Your task to perform on an android device: Add "logitech g pro" to the cart on newegg.com Image 0: 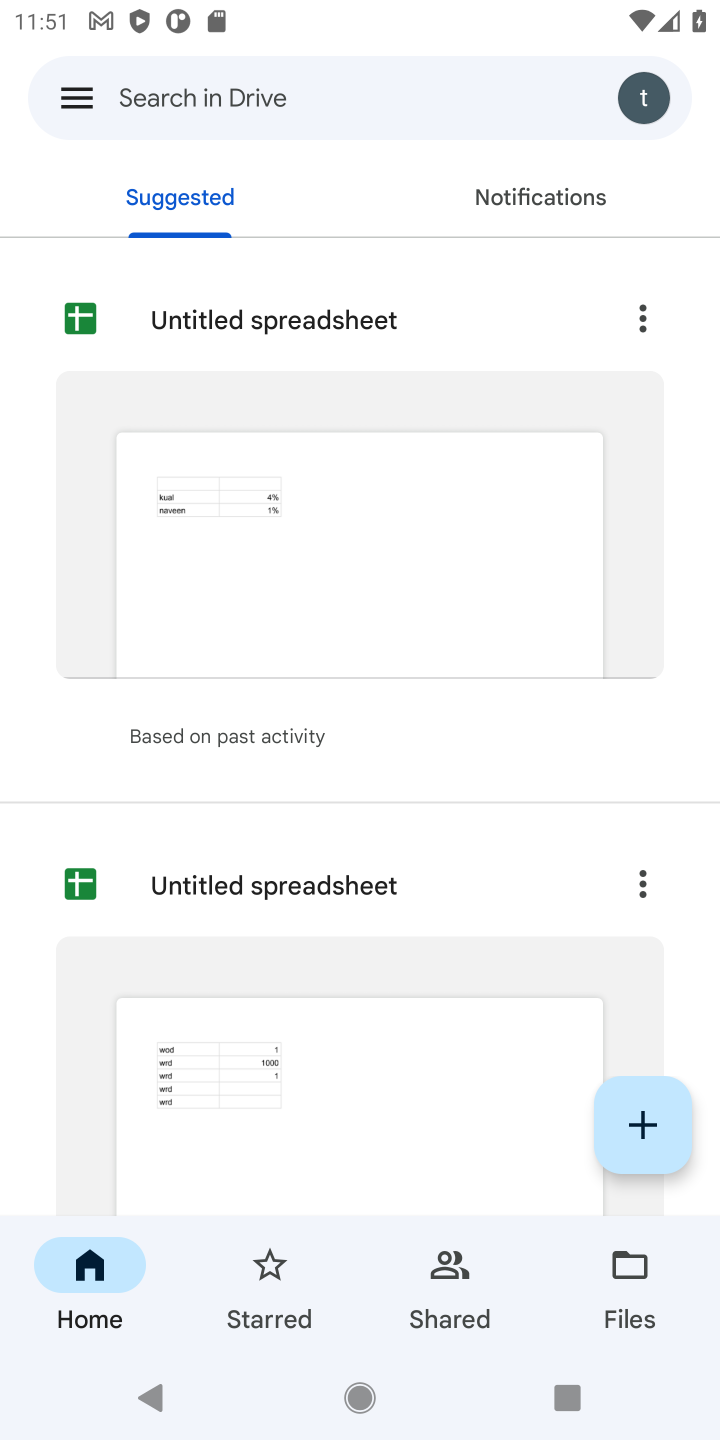
Step 0: press home button
Your task to perform on an android device: Add "logitech g pro" to the cart on newegg.com Image 1: 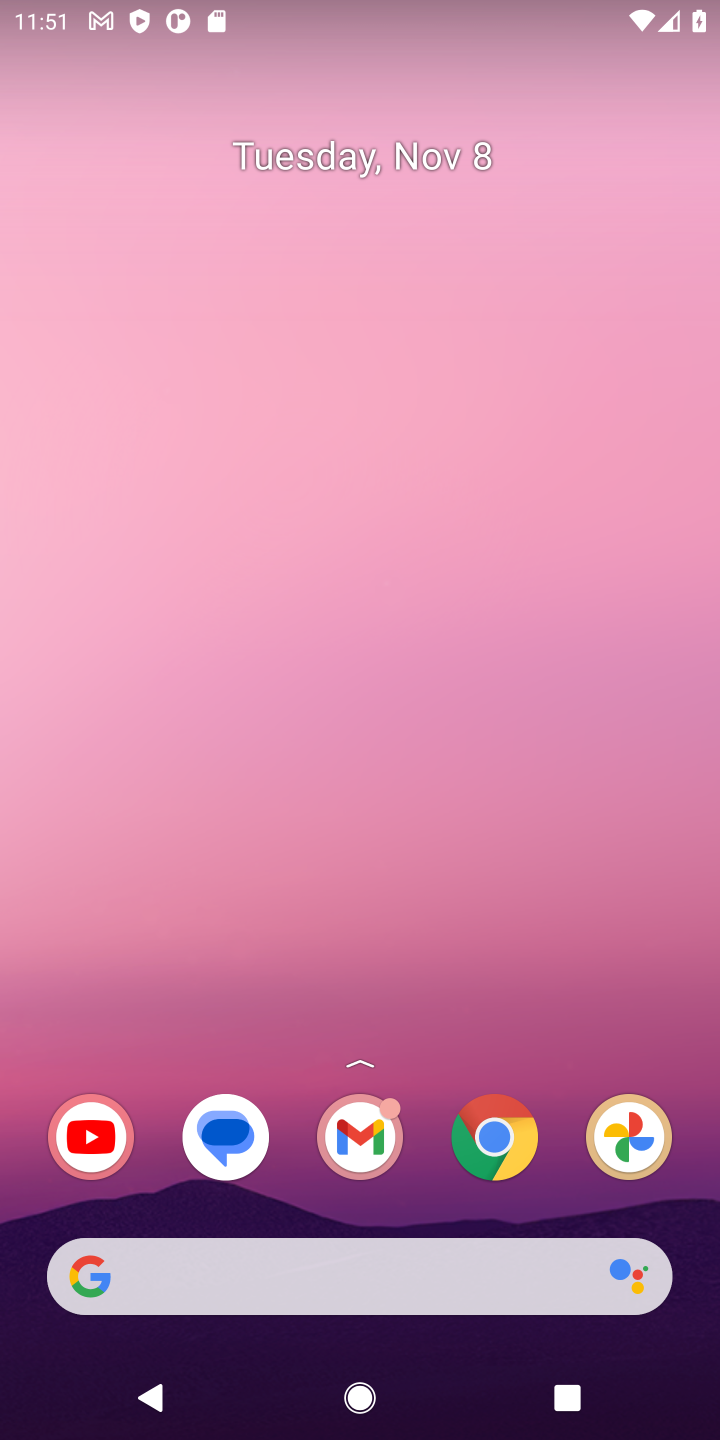
Step 1: click (494, 1141)
Your task to perform on an android device: Add "logitech g pro" to the cart on newegg.com Image 2: 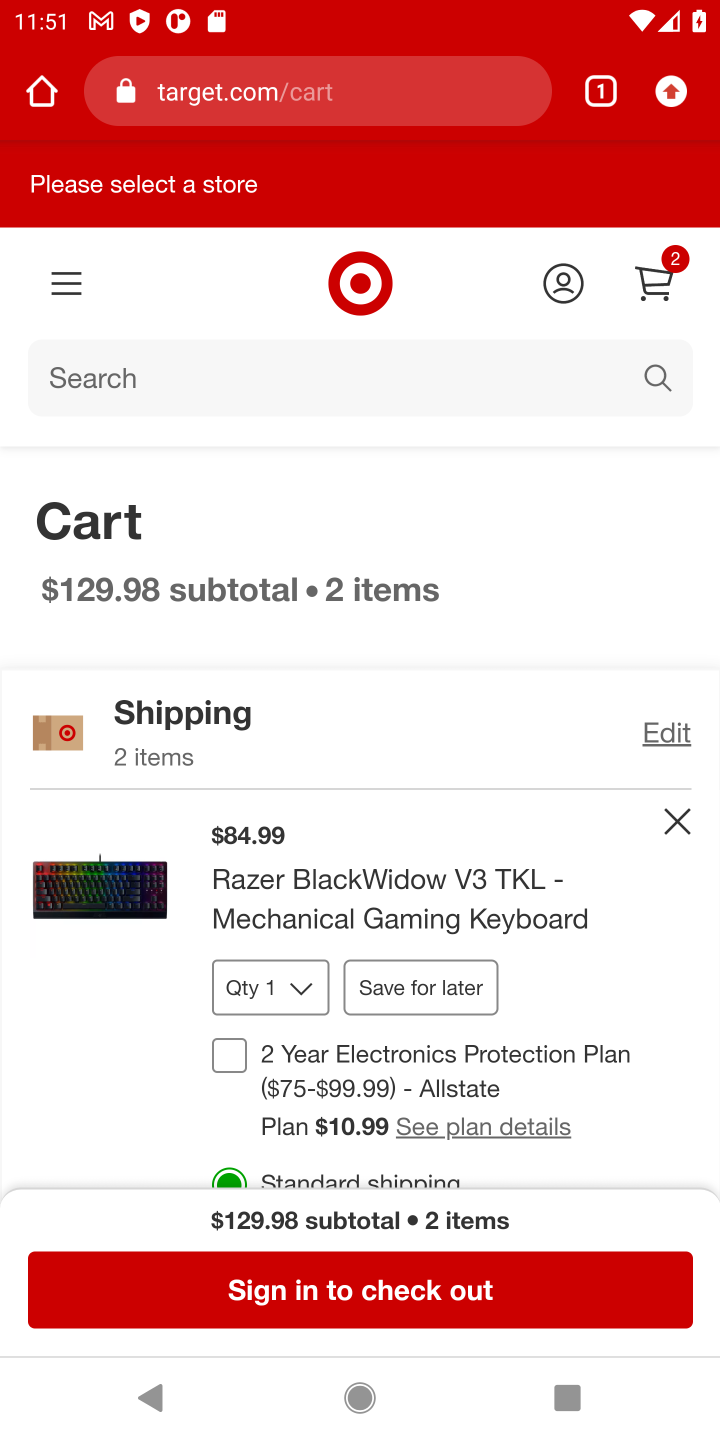
Step 2: click (356, 84)
Your task to perform on an android device: Add "logitech g pro" to the cart on newegg.com Image 3: 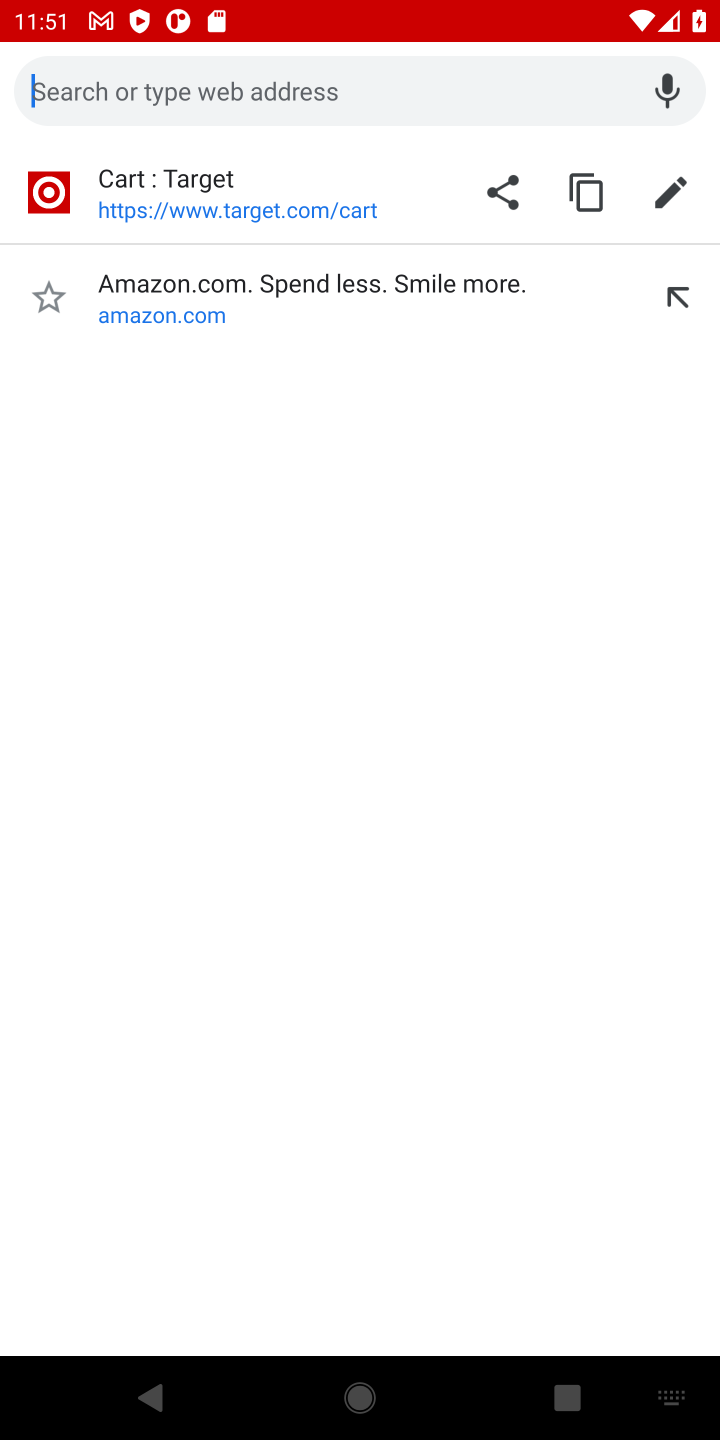
Step 3: type "newegg.com"
Your task to perform on an android device: Add "logitech g pro" to the cart on newegg.com Image 4: 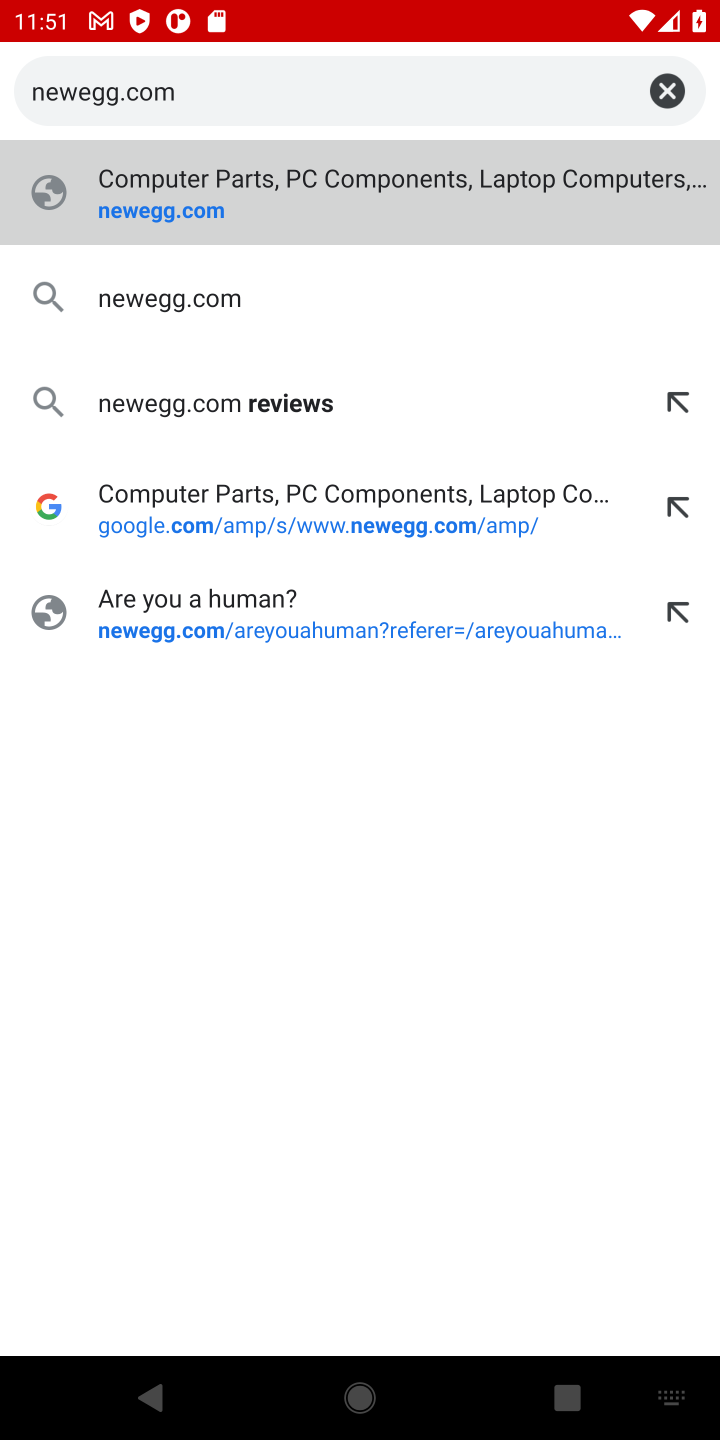
Step 4: click (205, 302)
Your task to perform on an android device: Add "logitech g pro" to the cart on newegg.com Image 5: 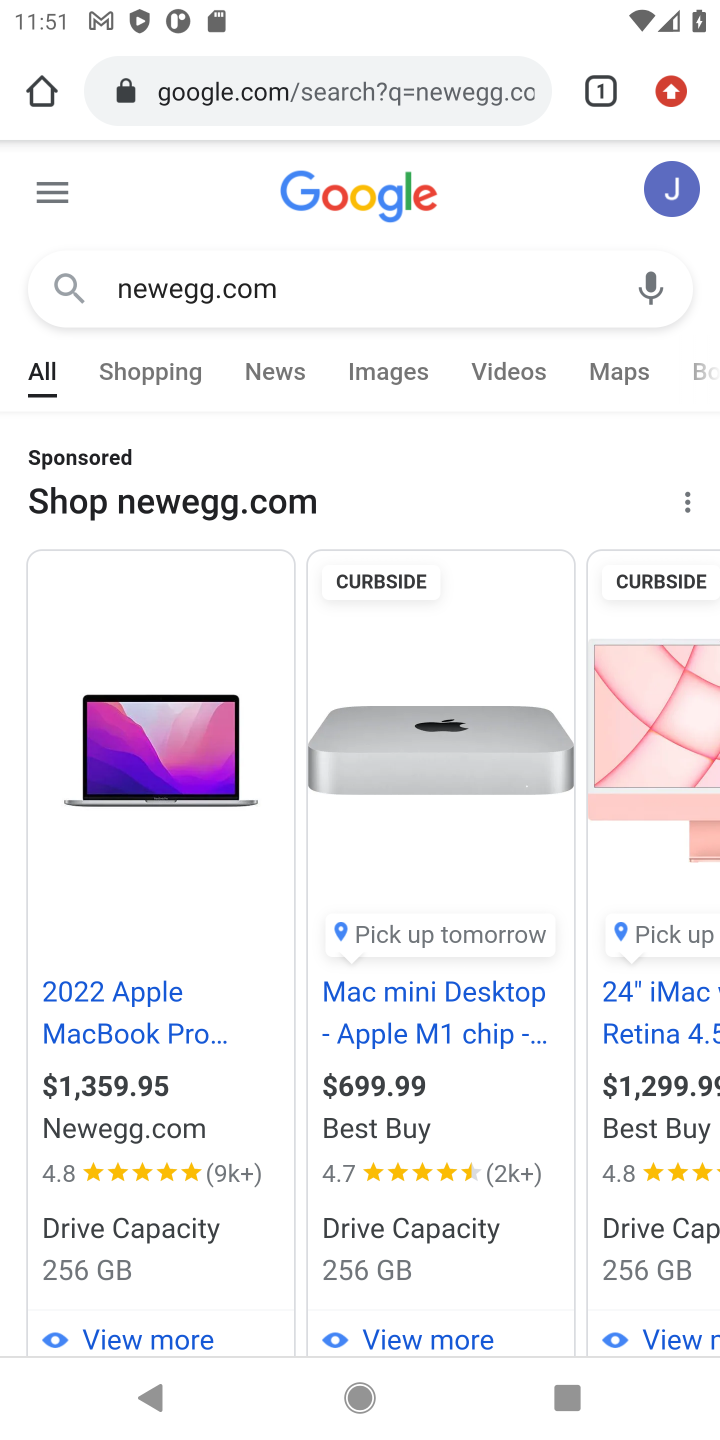
Step 5: drag from (485, 1112) to (478, 460)
Your task to perform on an android device: Add "logitech g pro" to the cart on newegg.com Image 6: 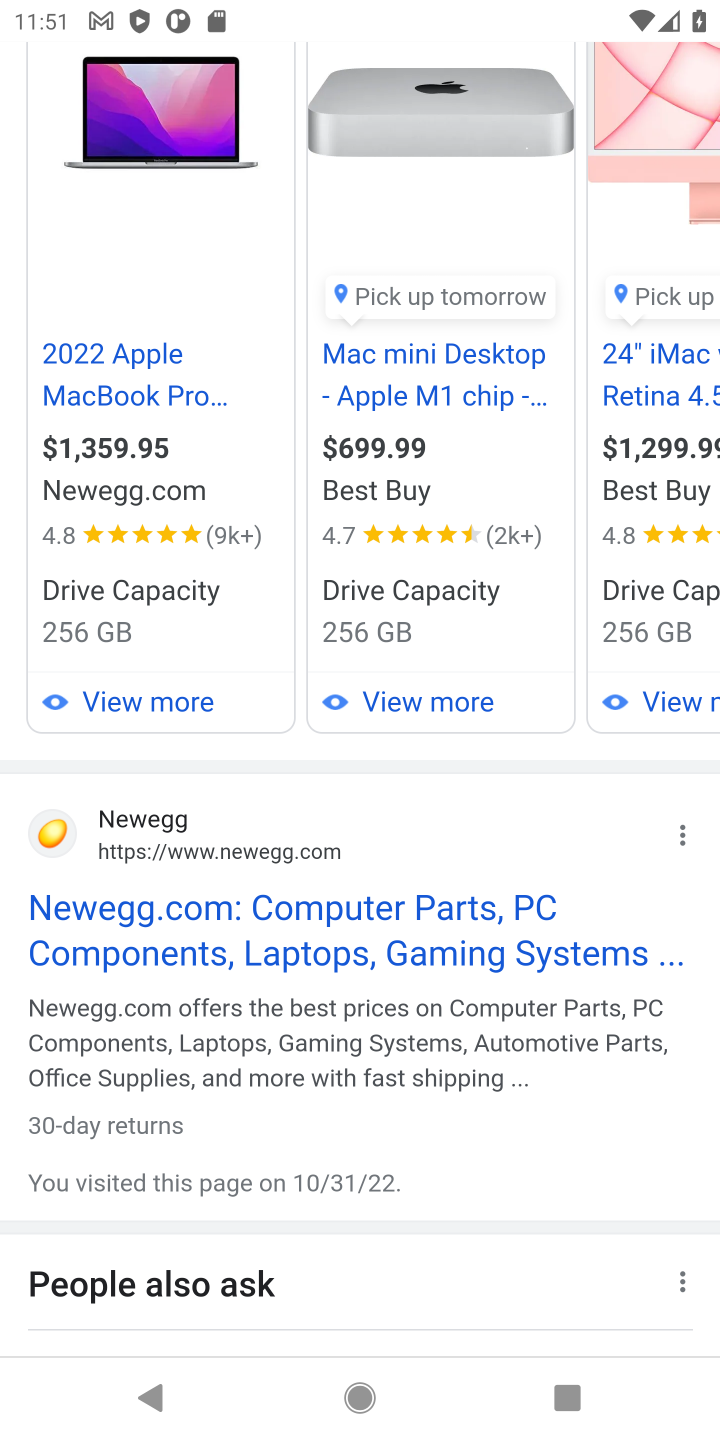
Step 6: click (311, 942)
Your task to perform on an android device: Add "logitech g pro" to the cart on newegg.com Image 7: 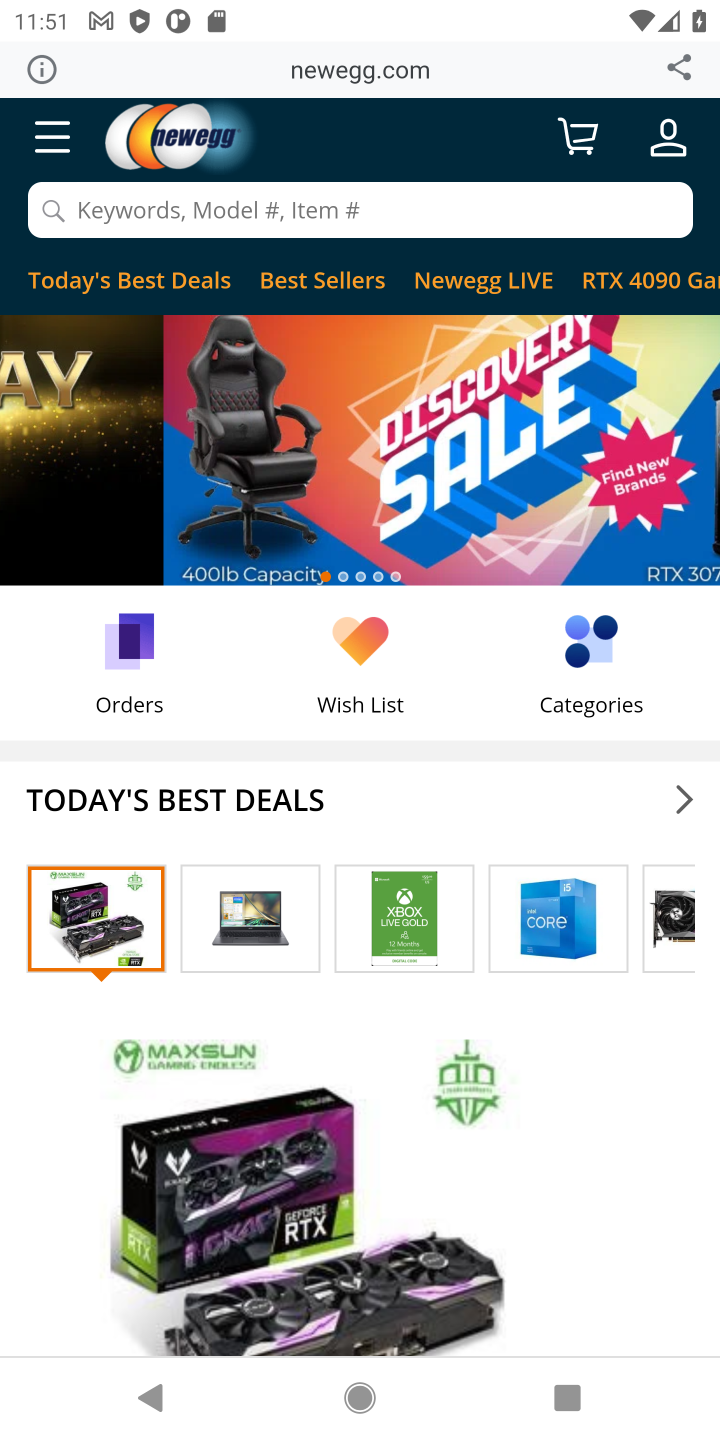
Step 7: click (52, 208)
Your task to perform on an android device: Add "logitech g pro" to the cart on newegg.com Image 8: 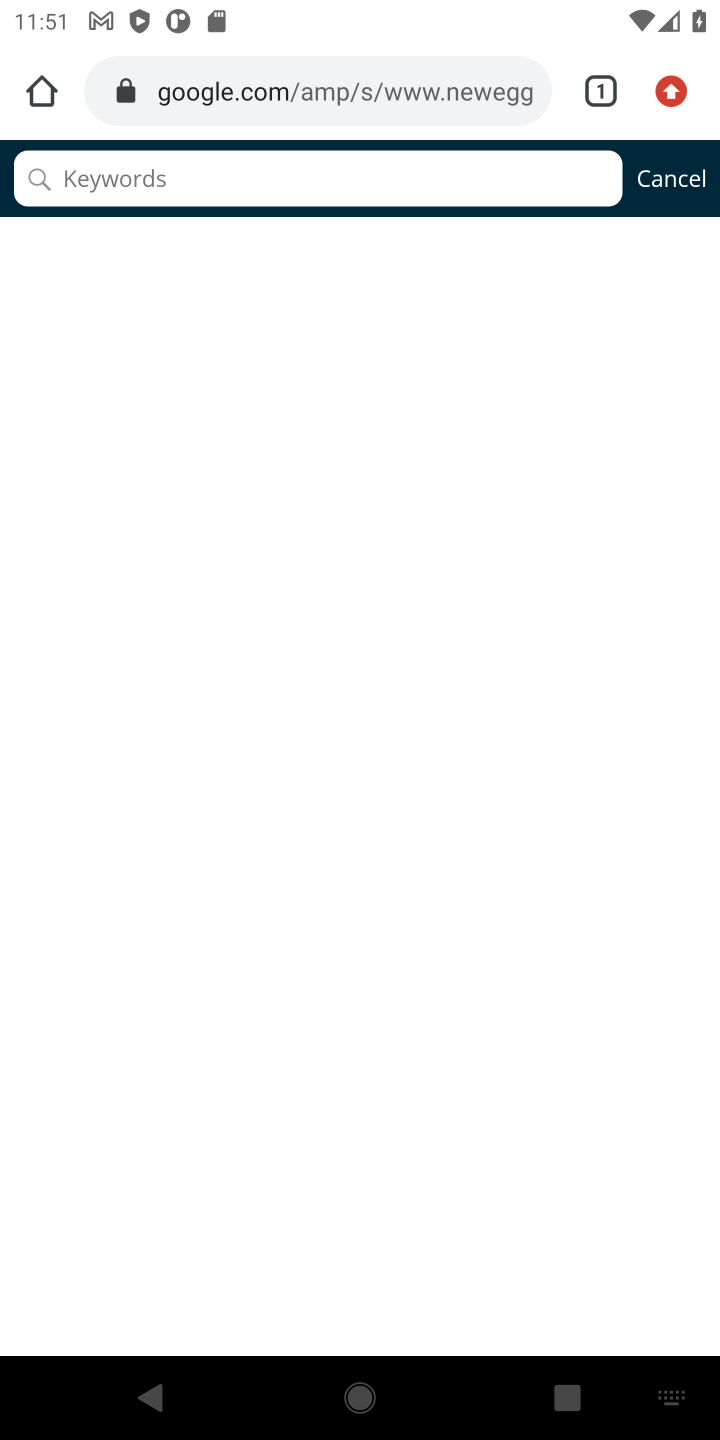
Step 8: click (130, 187)
Your task to perform on an android device: Add "logitech g pro" to the cart on newegg.com Image 9: 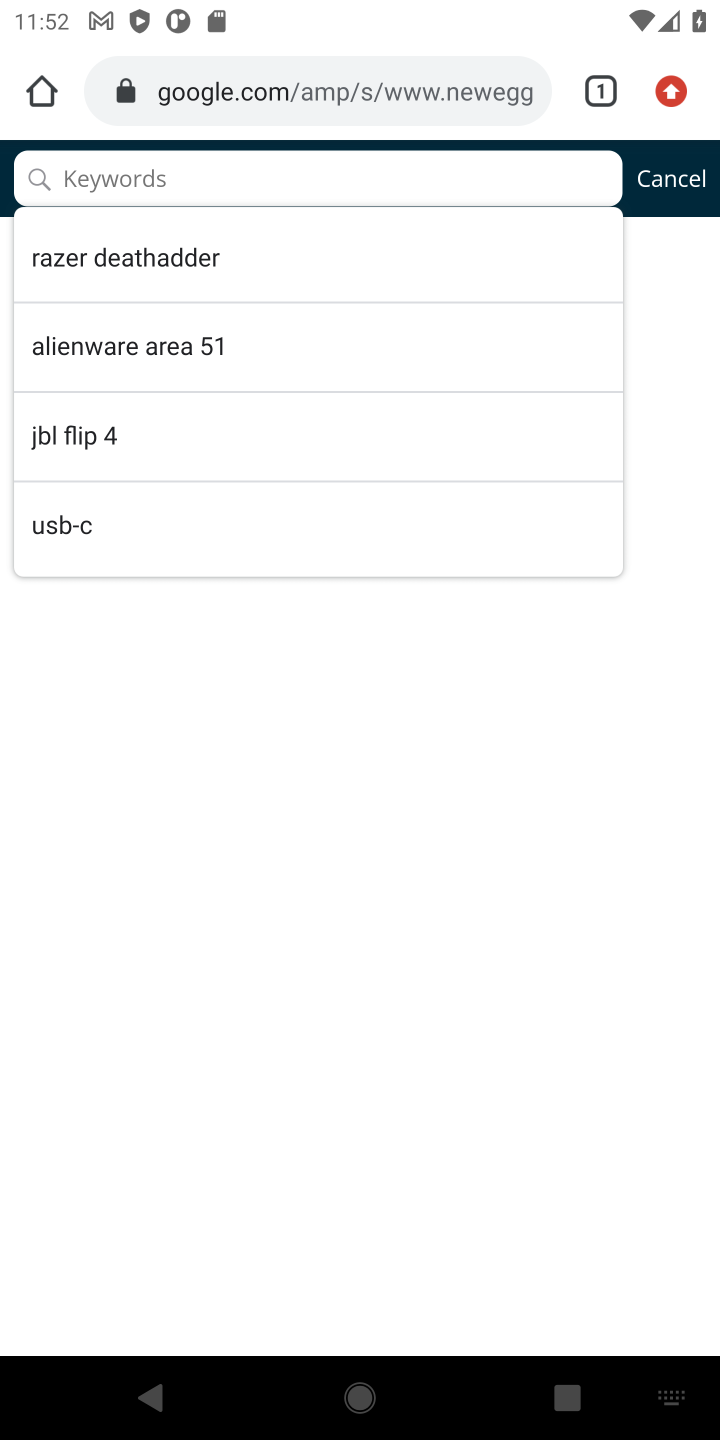
Step 9: type "logitech g pro"
Your task to perform on an android device: Add "logitech g pro" to the cart on newegg.com Image 10: 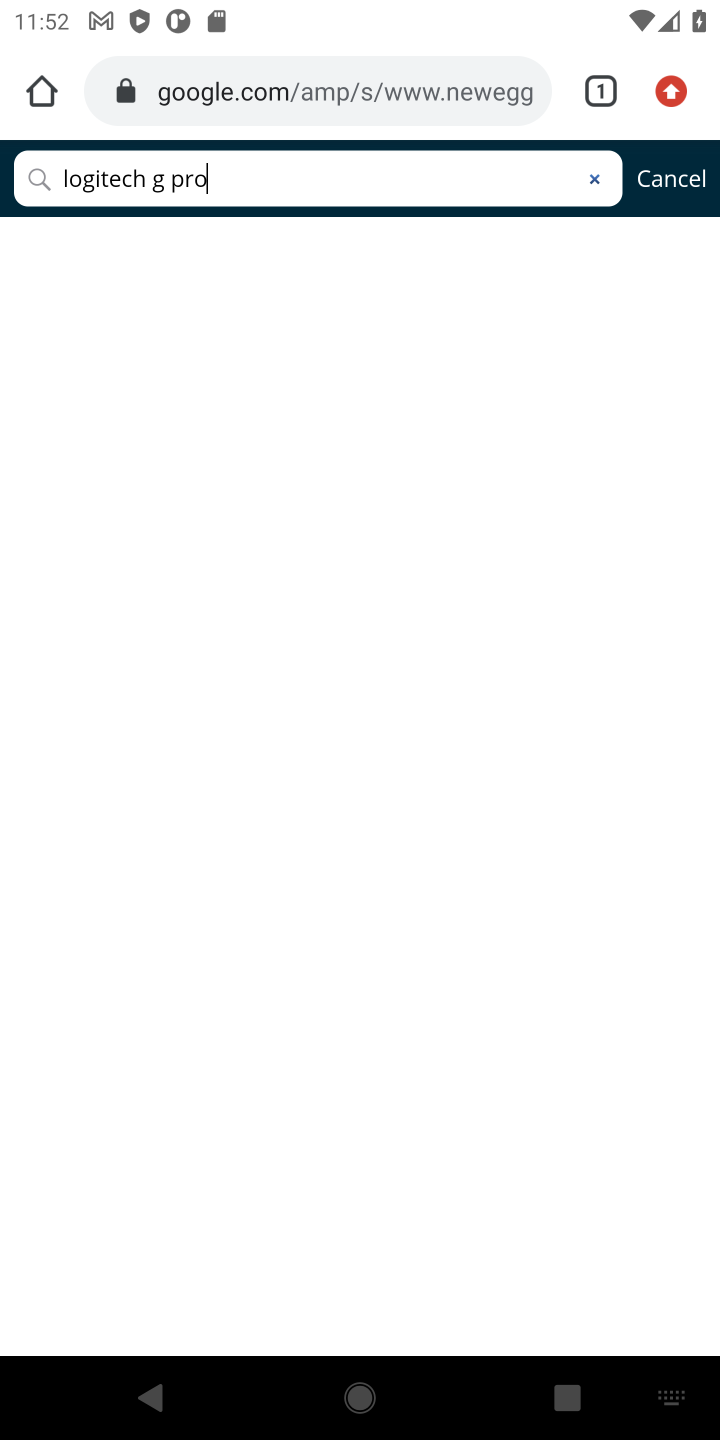
Step 10: click (38, 182)
Your task to perform on an android device: Add "logitech g pro" to the cart on newegg.com Image 11: 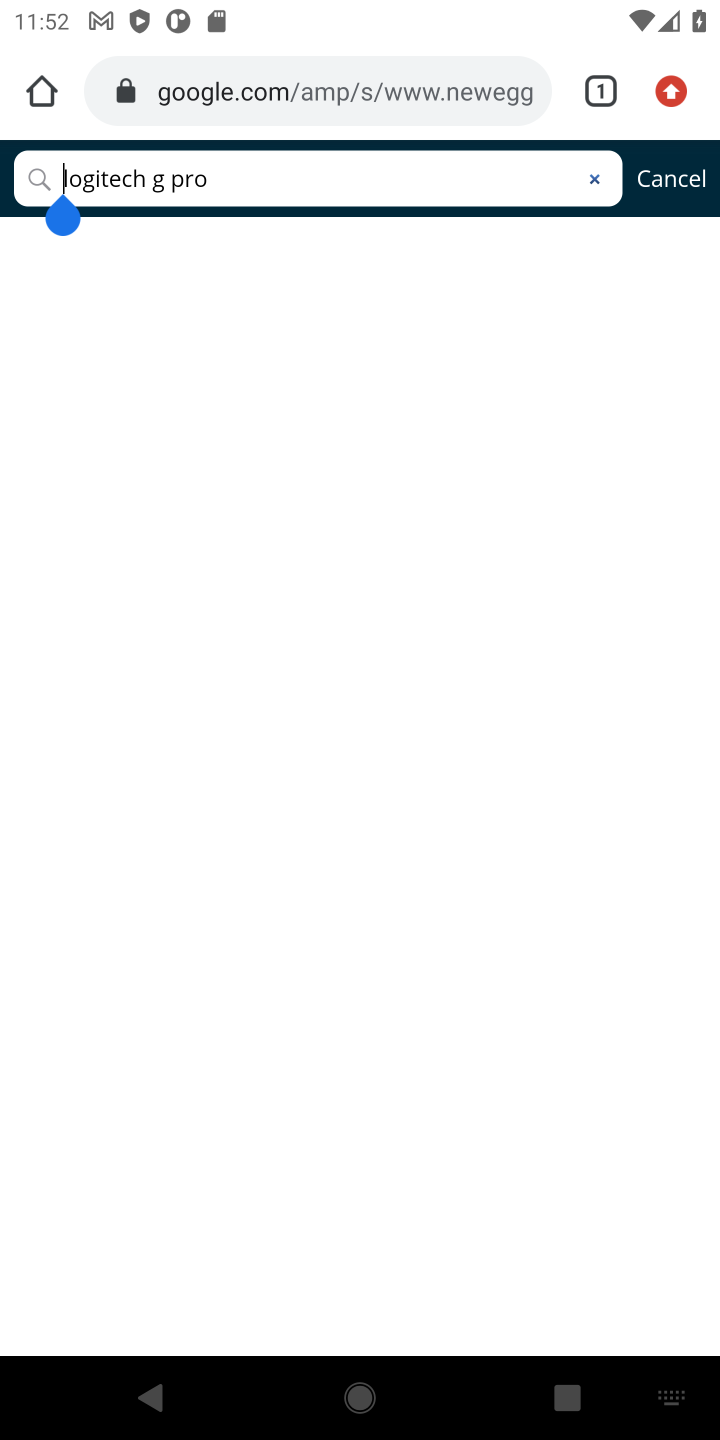
Step 11: click (36, 176)
Your task to perform on an android device: Add "logitech g pro" to the cart on newegg.com Image 12: 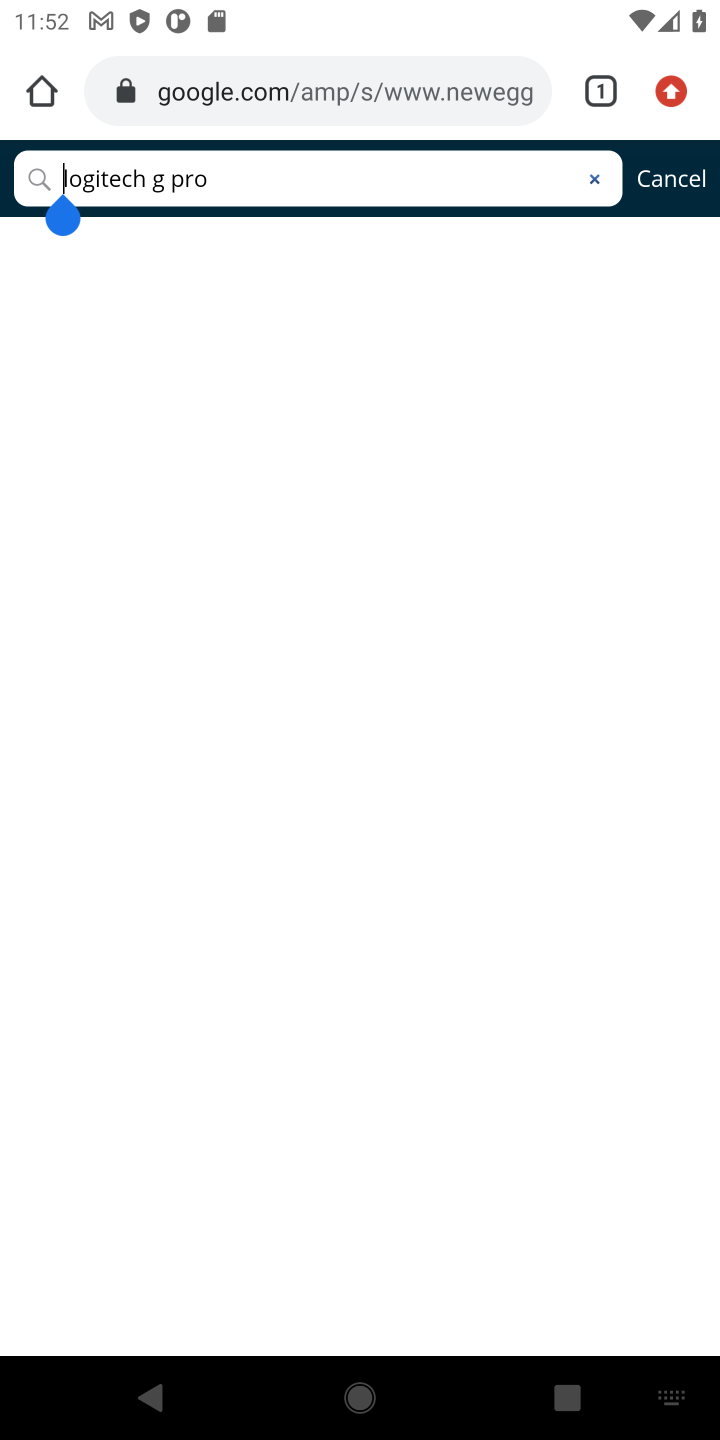
Step 12: click (36, 176)
Your task to perform on an android device: Add "logitech g pro" to the cart on newegg.com Image 13: 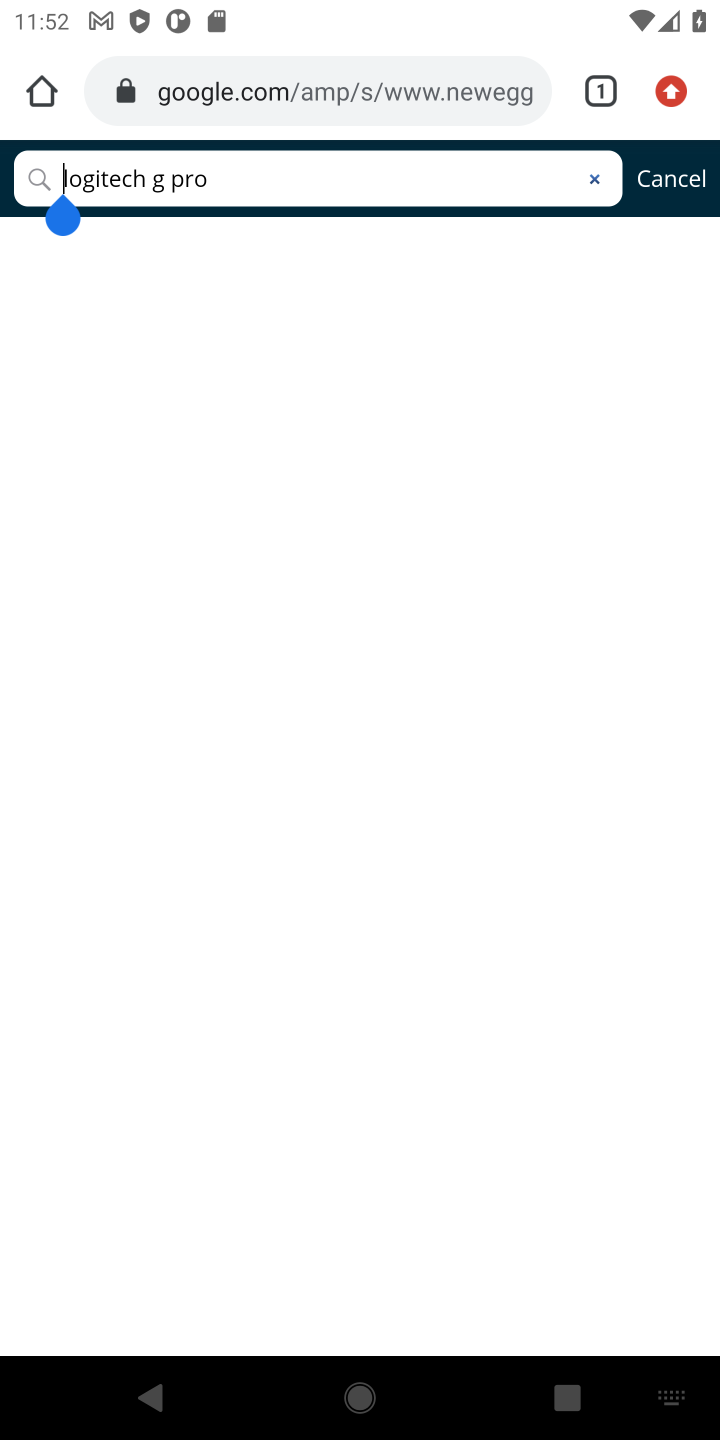
Step 13: click (36, 176)
Your task to perform on an android device: Add "logitech g pro" to the cart on newegg.com Image 14: 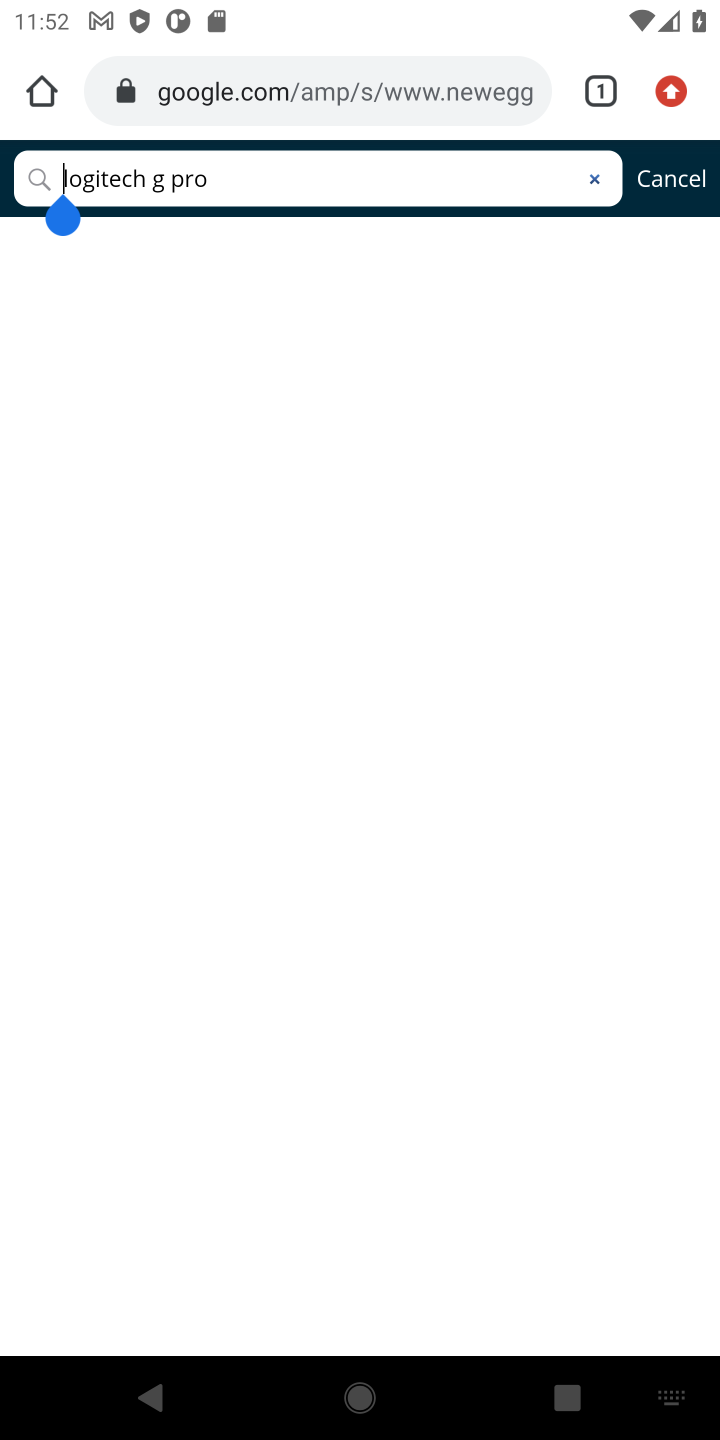
Step 14: click (36, 176)
Your task to perform on an android device: Add "logitech g pro" to the cart on newegg.com Image 15: 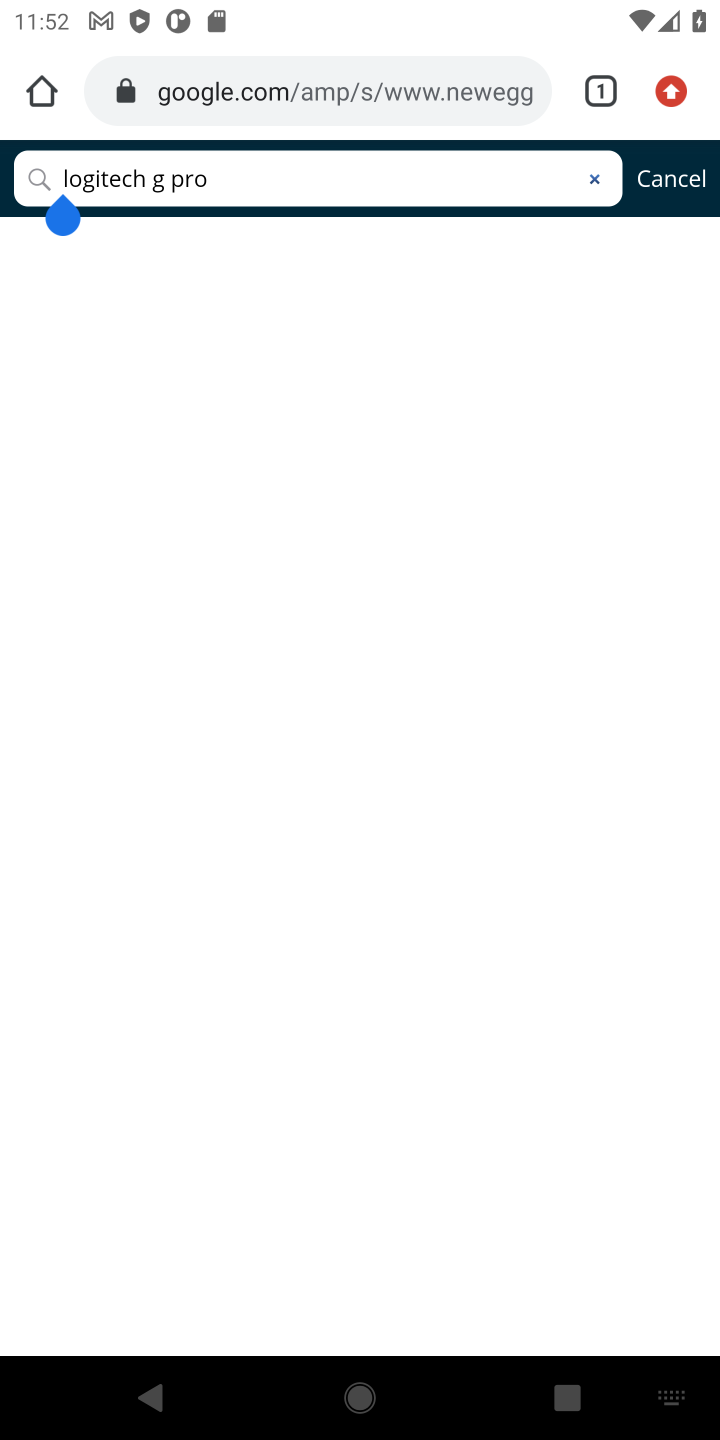
Step 15: click (36, 176)
Your task to perform on an android device: Add "logitech g pro" to the cart on newegg.com Image 16: 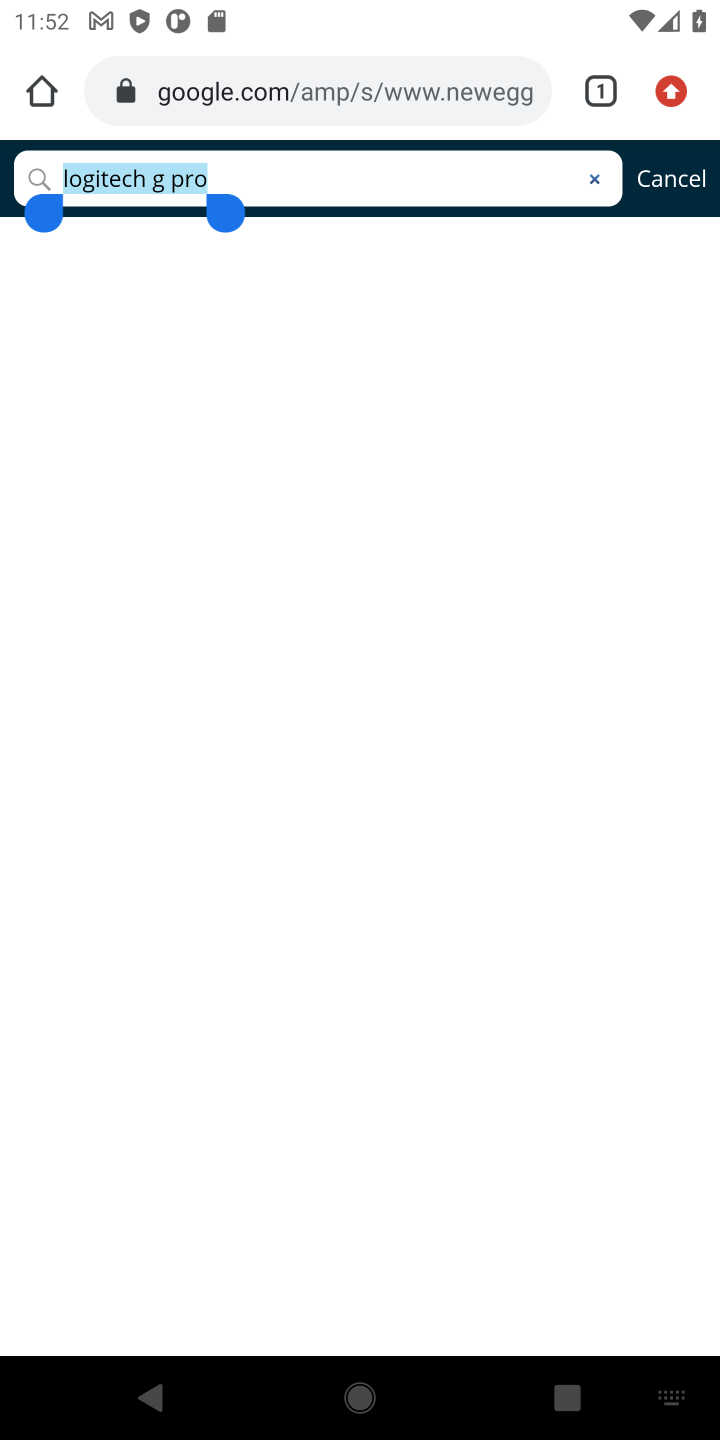
Step 16: task complete